Your task to perform on an android device: turn off smart reply in the gmail app Image 0: 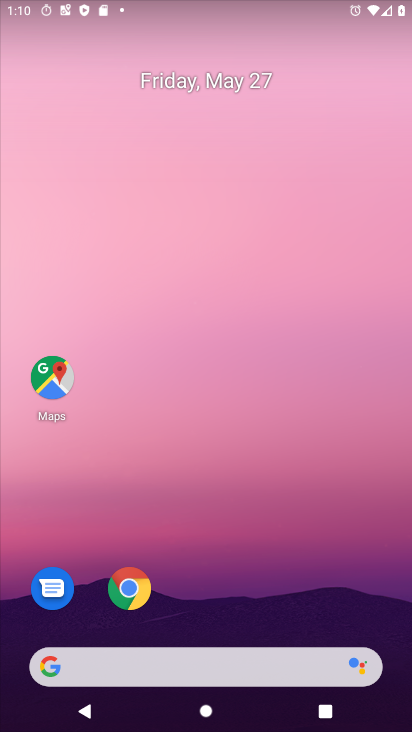
Step 0: drag from (211, 628) to (207, 87)
Your task to perform on an android device: turn off smart reply in the gmail app Image 1: 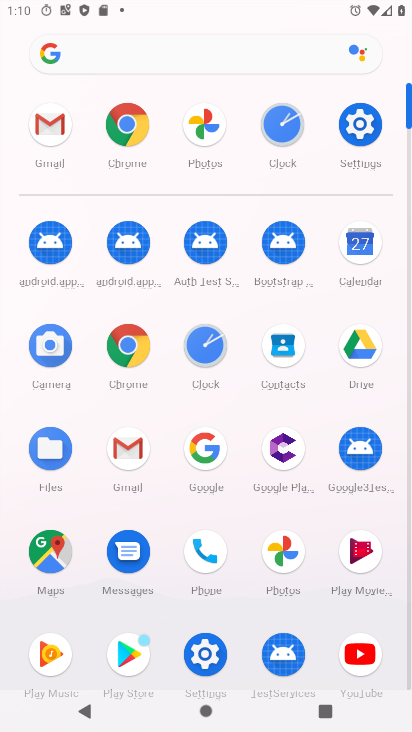
Step 1: click (49, 120)
Your task to perform on an android device: turn off smart reply in the gmail app Image 2: 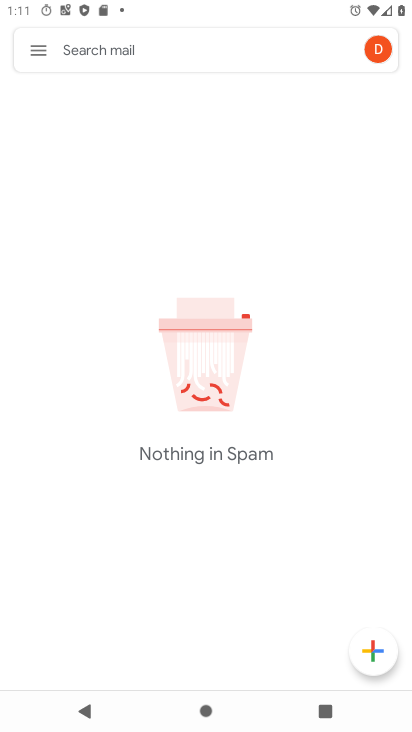
Step 2: click (35, 52)
Your task to perform on an android device: turn off smart reply in the gmail app Image 3: 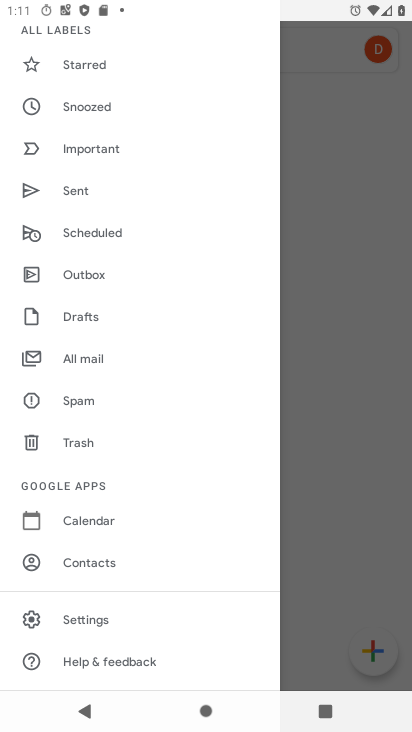
Step 3: click (120, 613)
Your task to perform on an android device: turn off smart reply in the gmail app Image 4: 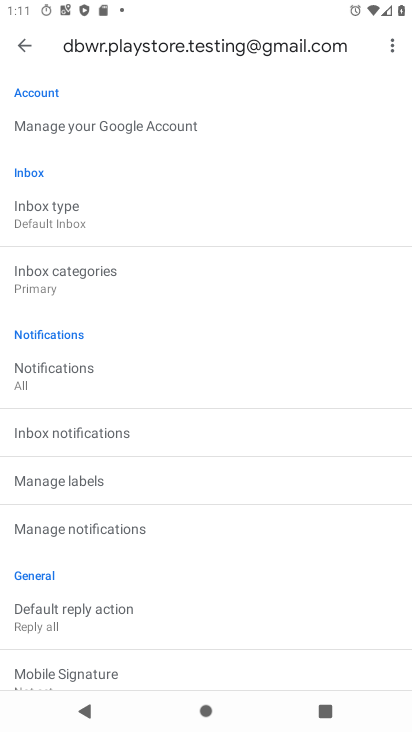
Step 4: drag from (157, 642) to (194, 166)
Your task to perform on an android device: turn off smart reply in the gmail app Image 5: 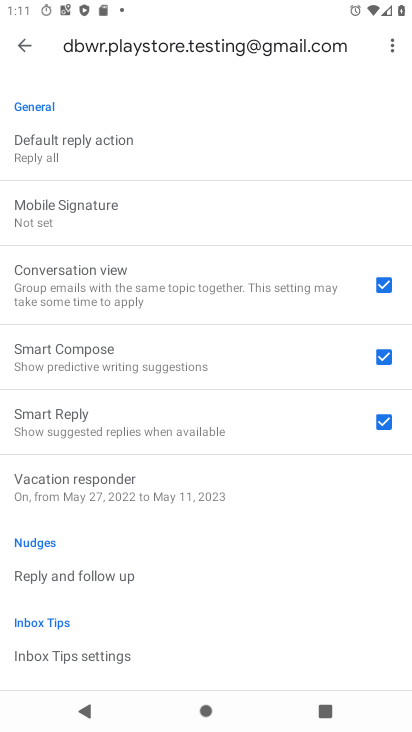
Step 5: click (100, 411)
Your task to perform on an android device: turn off smart reply in the gmail app Image 6: 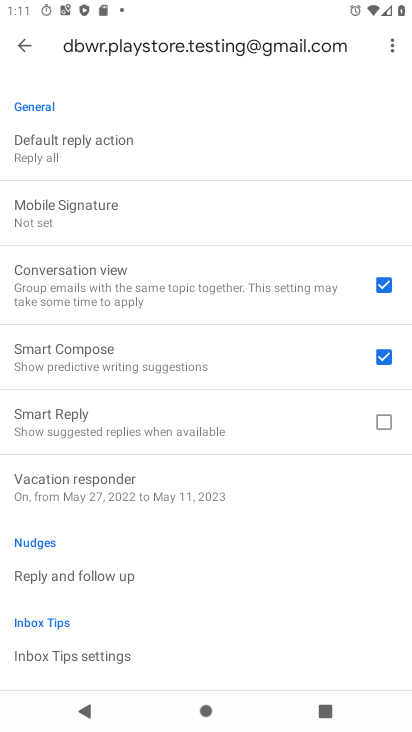
Step 6: task complete